Your task to perform on an android device: open app "Pluto TV - Live TV and Movies" Image 0: 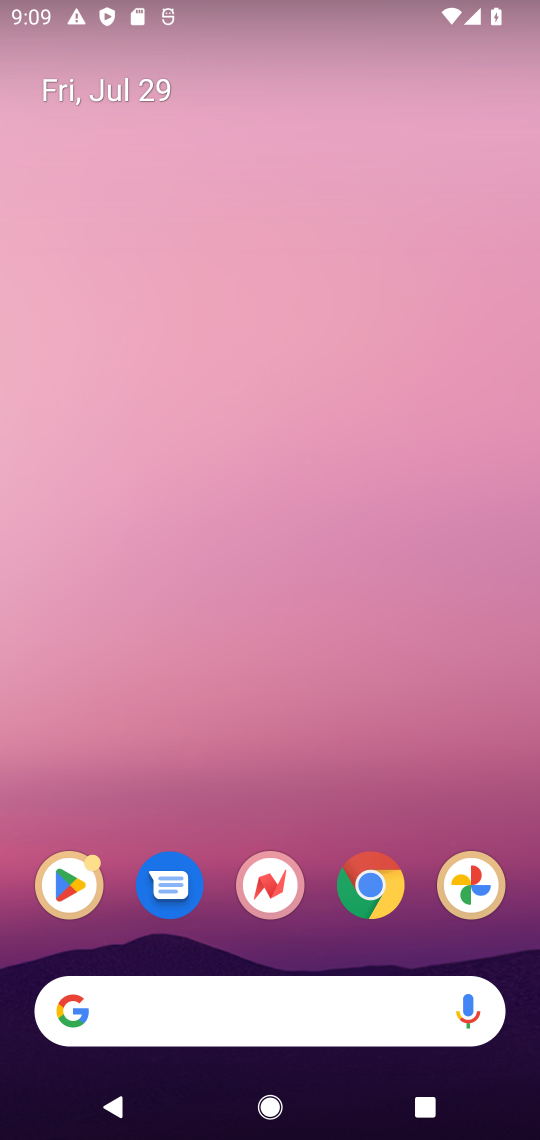
Step 0: click (68, 888)
Your task to perform on an android device: open app "Pluto TV - Live TV and Movies" Image 1: 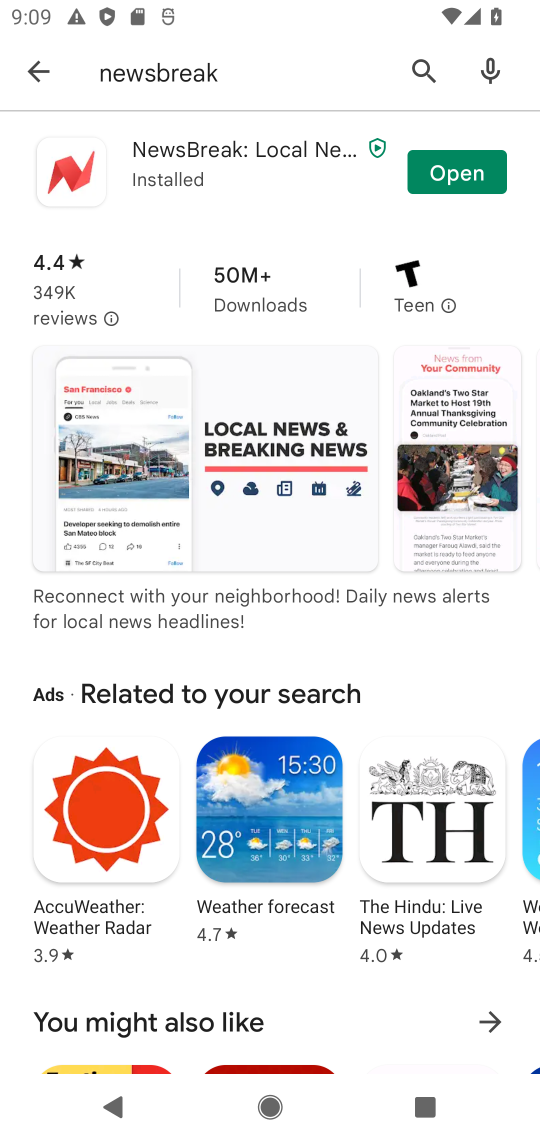
Step 1: click (162, 77)
Your task to perform on an android device: open app "Pluto TV - Live TV and Movies" Image 2: 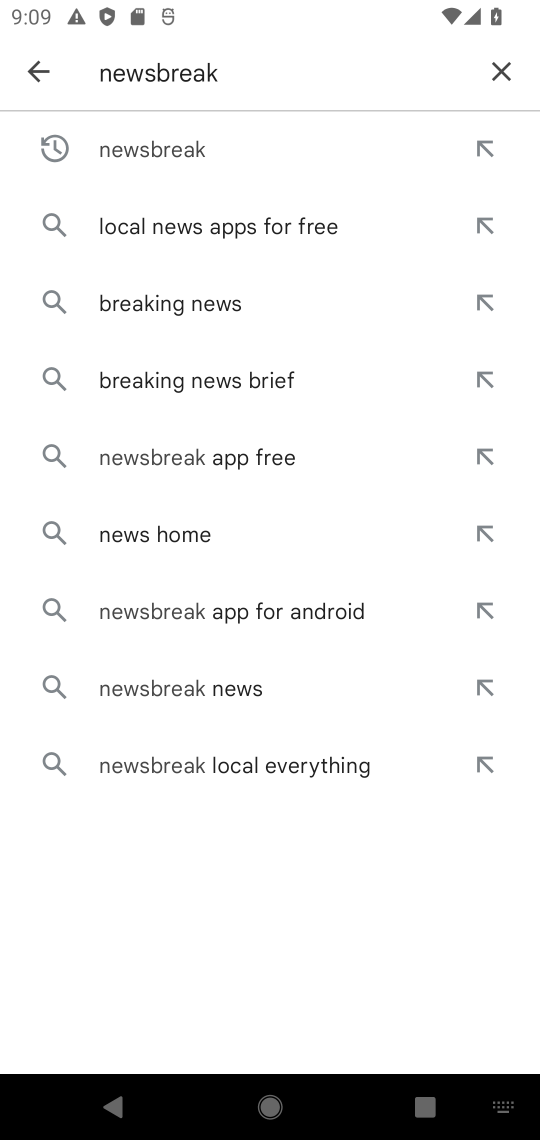
Step 2: click (504, 75)
Your task to perform on an android device: open app "Pluto TV - Live TV and Movies" Image 3: 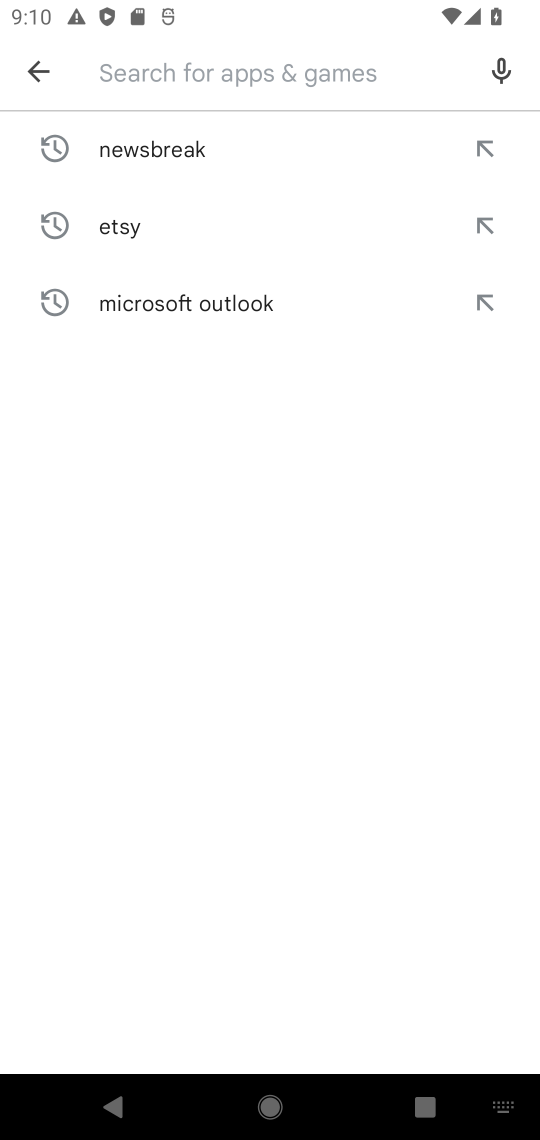
Step 3: type "pluto TV"
Your task to perform on an android device: open app "Pluto TV - Live TV and Movies" Image 4: 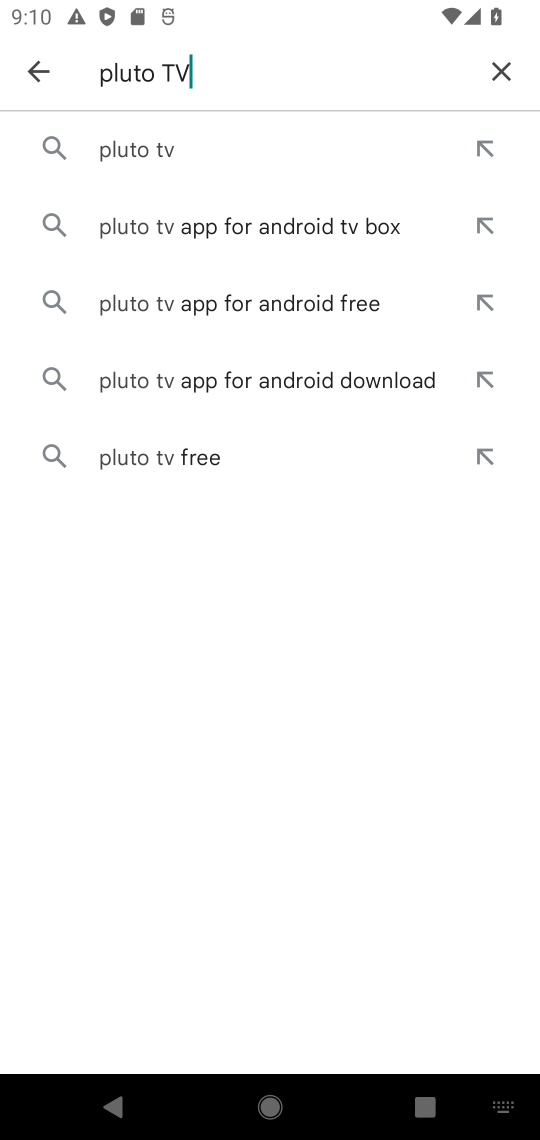
Step 4: click (108, 175)
Your task to perform on an android device: open app "Pluto TV - Live TV and Movies" Image 5: 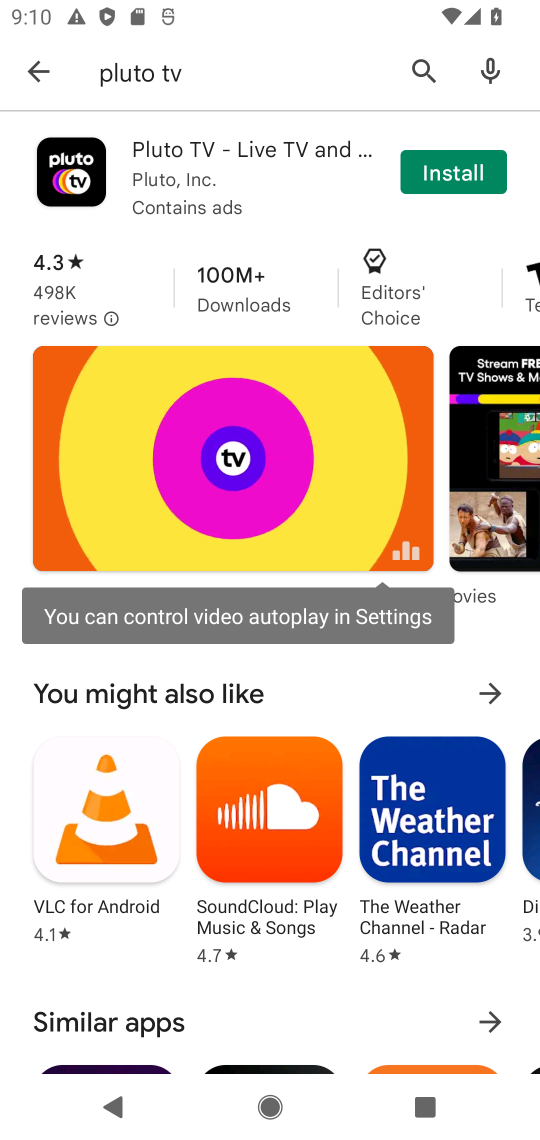
Step 5: task complete